Your task to perform on an android device: turn notification dots off Image 0: 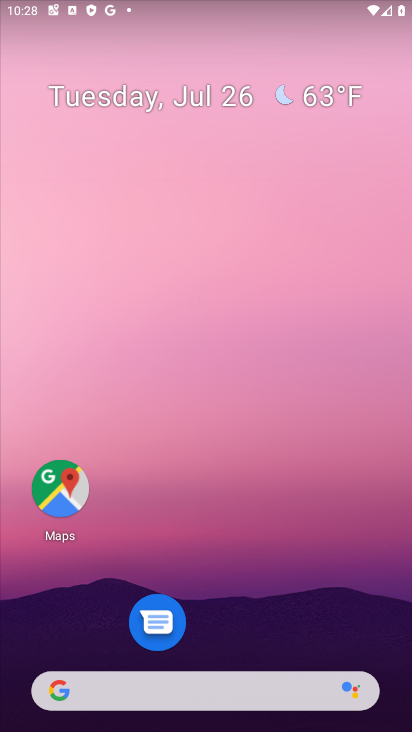
Step 0: drag from (326, 619) to (331, 133)
Your task to perform on an android device: turn notification dots off Image 1: 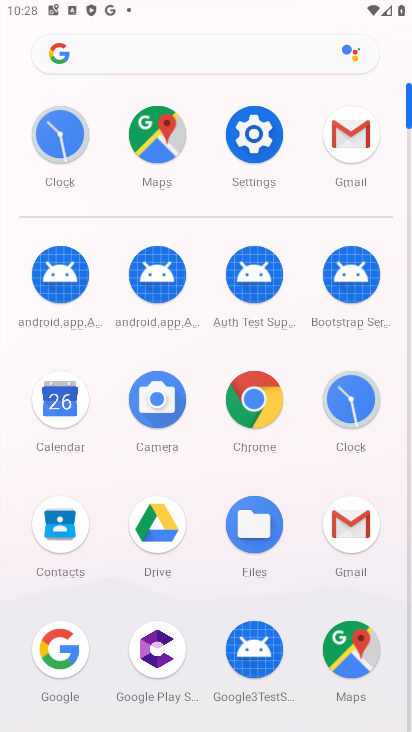
Step 1: click (248, 128)
Your task to perform on an android device: turn notification dots off Image 2: 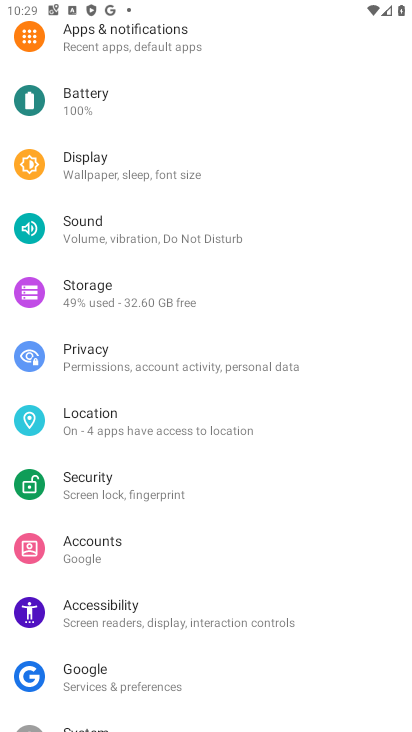
Step 2: drag from (222, 226) to (267, 560)
Your task to perform on an android device: turn notification dots off Image 3: 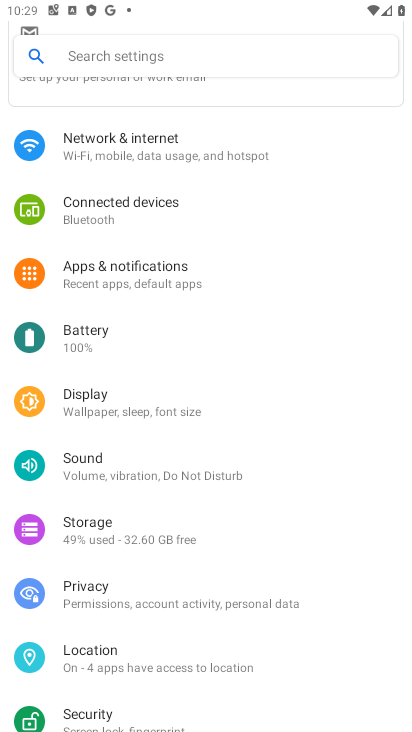
Step 3: click (153, 281)
Your task to perform on an android device: turn notification dots off Image 4: 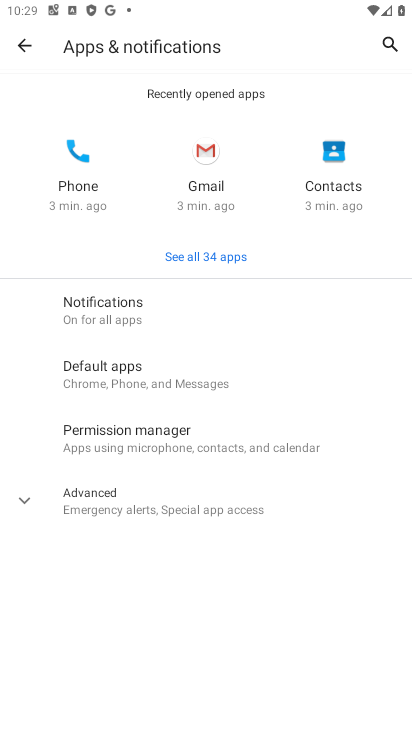
Step 4: click (105, 320)
Your task to perform on an android device: turn notification dots off Image 5: 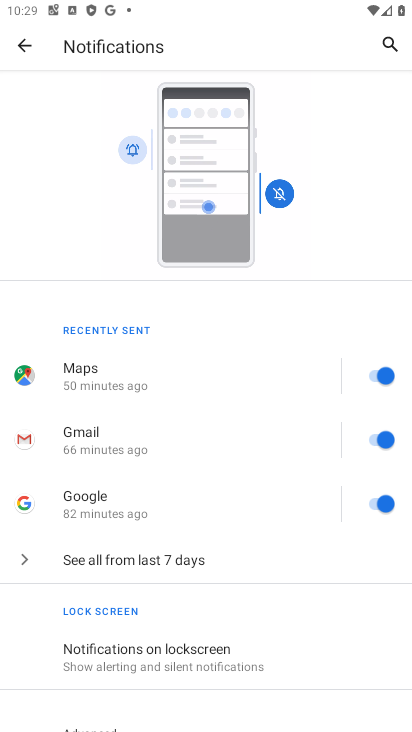
Step 5: drag from (225, 590) to (299, 276)
Your task to perform on an android device: turn notification dots off Image 6: 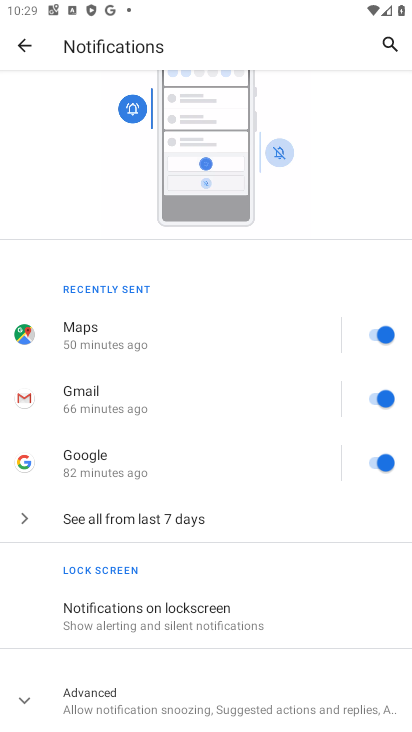
Step 6: click (203, 687)
Your task to perform on an android device: turn notification dots off Image 7: 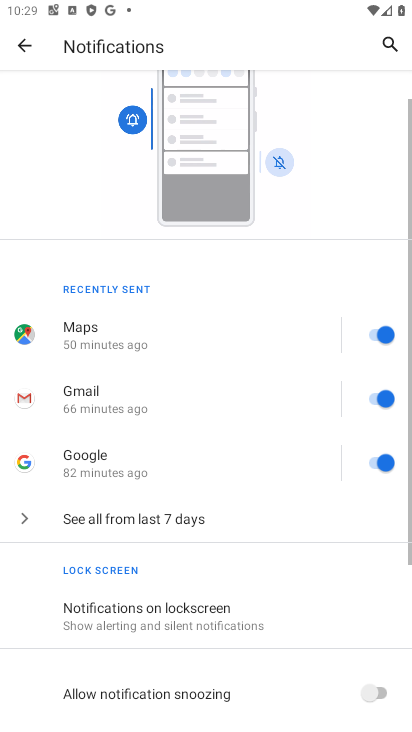
Step 7: drag from (206, 683) to (269, 255)
Your task to perform on an android device: turn notification dots off Image 8: 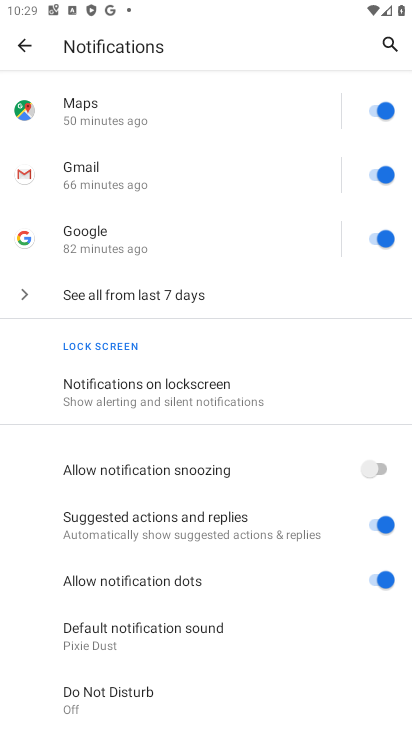
Step 8: click (366, 576)
Your task to perform on an android device: turn notification dots off Image 9: 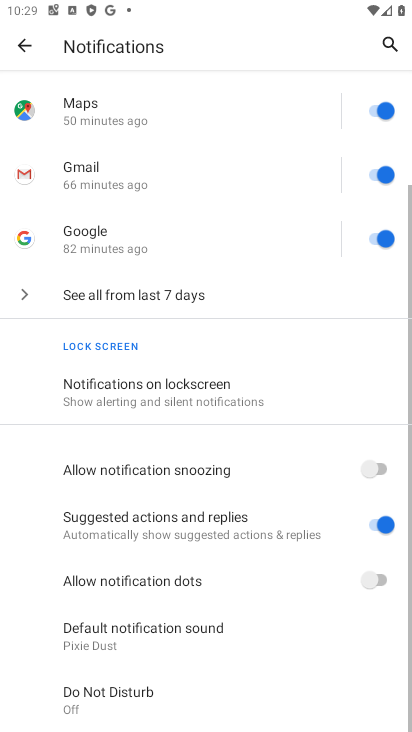
Step 9: task complete